Your task to perform on an android device: turn on notifications settings in the gmail app Image 0: 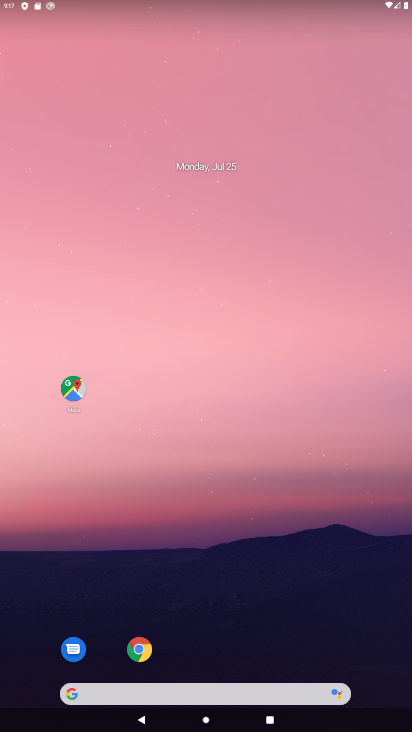
Step 0: drag from (269, 456) to (281, 0)
Your task to perform on an android device: turn on notifications settings in the gmail app Image 1: 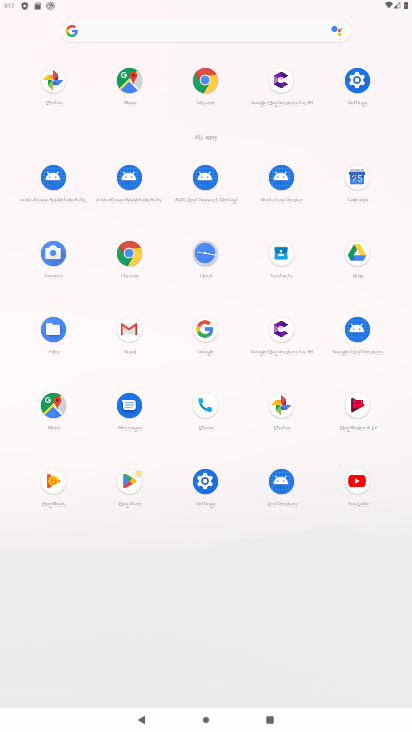
Step 1: click (134, 333)
Your task to perform on an android device: turn on notifications settings in the gmail app Image 2: 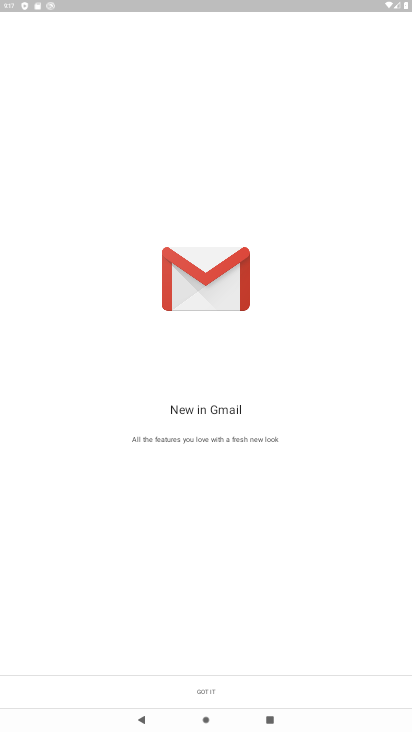
Step 2: click (193, 692)
Your task to perform on an android device: turn on notifications settings in the gmail app Image 3: 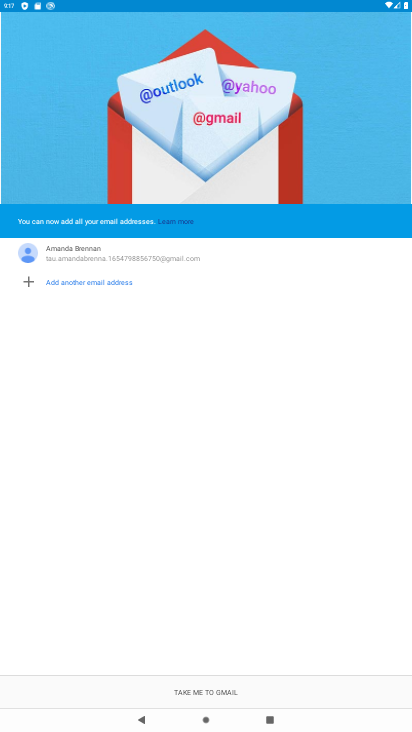
Step 3: click (232, 691)
Your task to perform on an android device: turn on notifications settings in the gmail app Image 4: 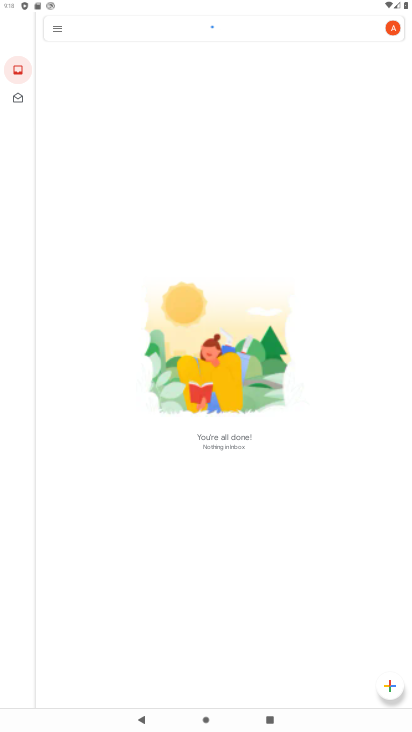
Step 4: click (53, 23)
Your task to perform on an android device: turn on notifications settings in the gmail app Image 5: 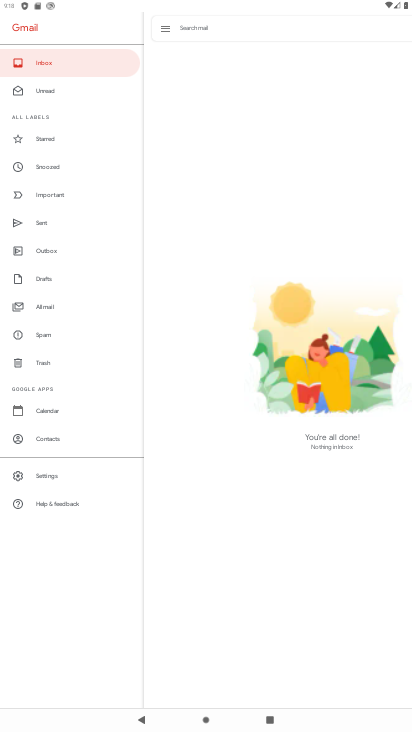
Step 5: click (52, 478)
Your task to perform on an android device: turn on notifications settings in the gmail app Image 6: 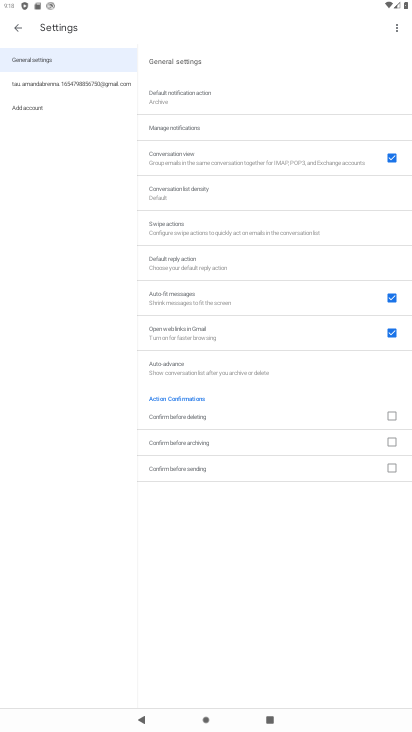
Step 6: click (71, 80)
Your task to perform on an android device: turn on notifications settings in the gmail app Image 7: 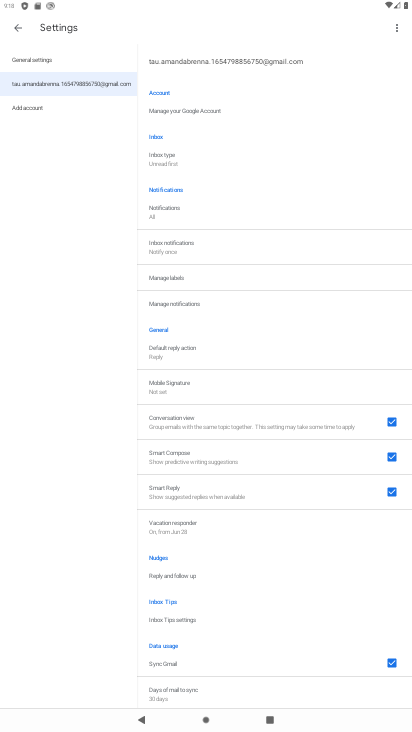
Step 7: click (167, 213)
Your task to perform on an android device: turn on notifications settings in the gmail app Image 8: 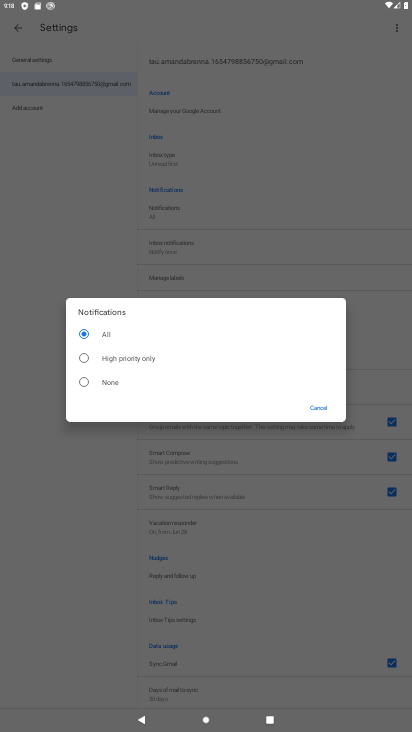
Step 8: task complete